Your task to perform on an android device: turn on improve location accuracy Image 0: 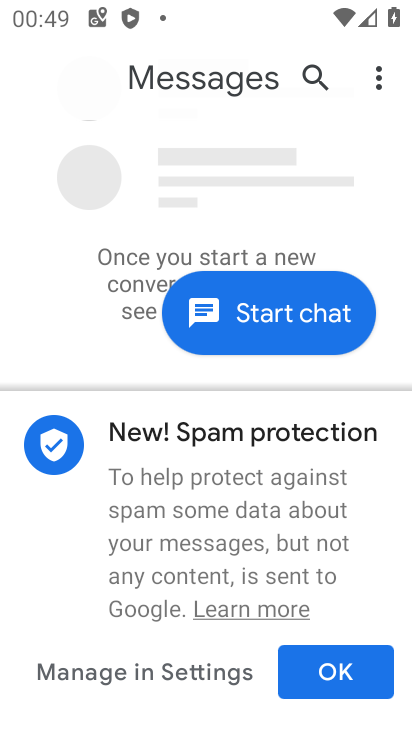
Step 0: press home button
Your task to perform on an android device: turn on improve location accuracy Image 1: 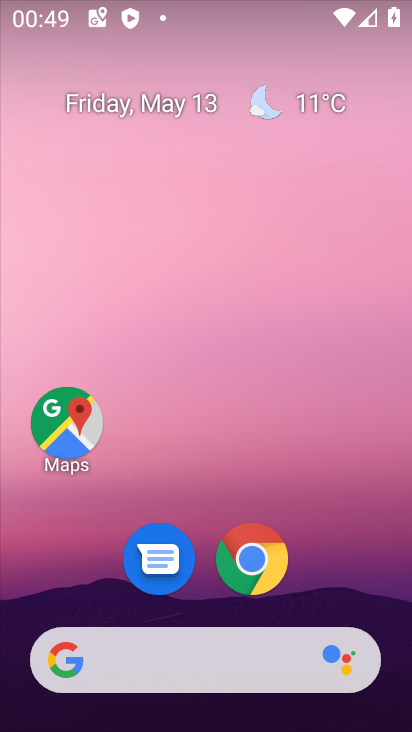
Step 1: drag from (197, 486) to (209, 89)
Your task to perform on an android device: turn on improve location accuracy Image 2: 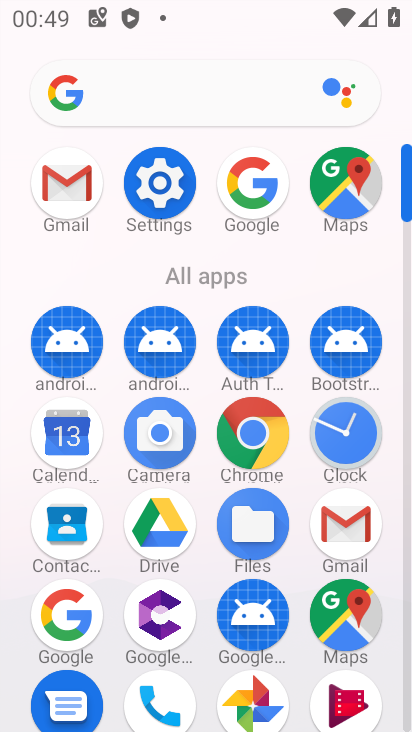
Step 2: click (156, 180)
Your task to perform on an android device: turn on improve location accuracy Image 3: 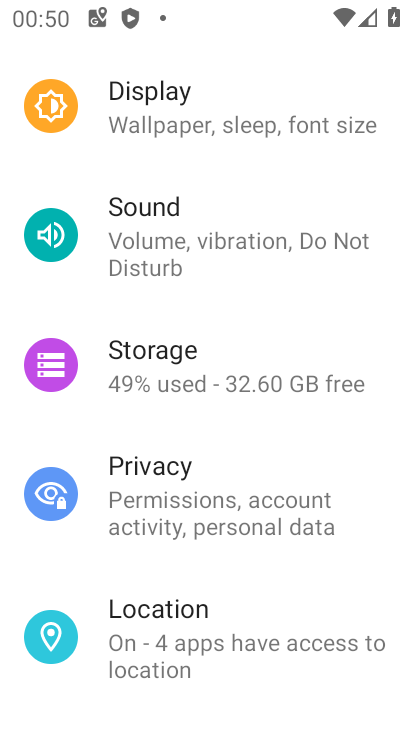
Step 3: click (207, 636)
Your task to perform on an android device: turn on improve location accuracy Image 4: 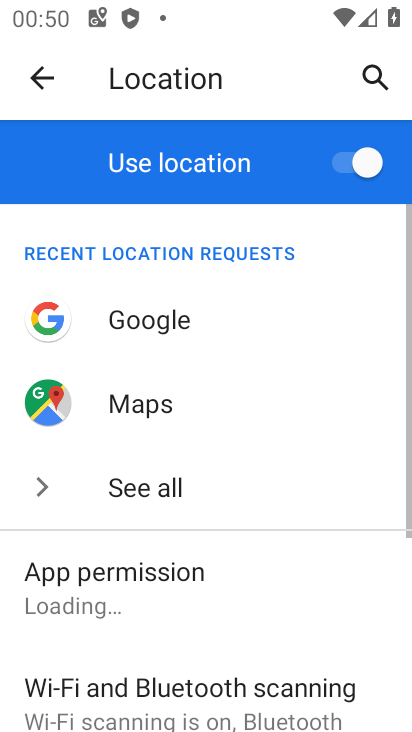
Step 4: drag from (276, 574) to (277, 229)
Your task to perform on an android device: turn on improve location accuracy Image 5: 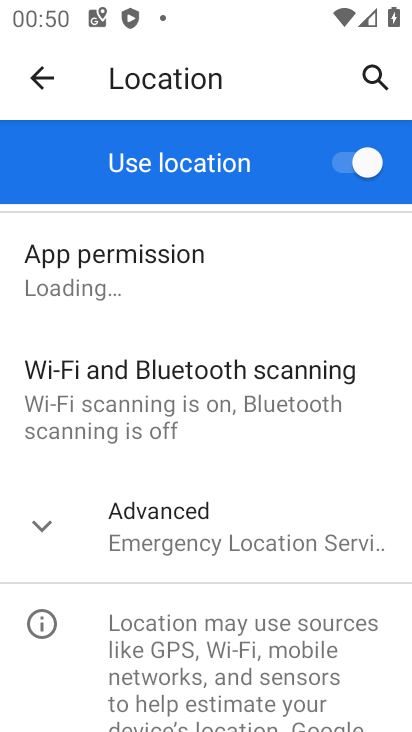
Step 5: click (142, 523)
Your task to perform on an android device: turn on improve location accuracy Image 6: 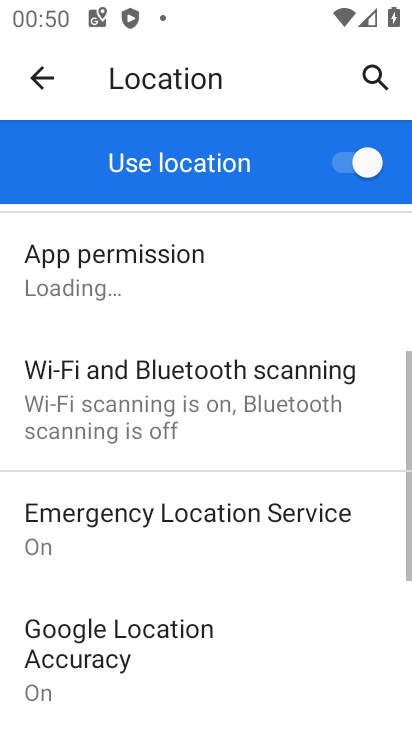
Step 6: drag from (291, 571) to (282, 309)
Your task to perform on an android device: turn on improve location accuracy Image 7: 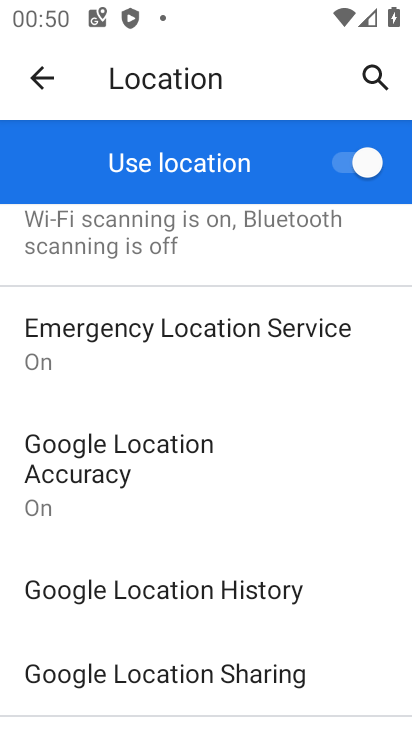
Step 7: click (117, 473)
Your task to perform on an android device: turn on improve location accuracy Image 8: 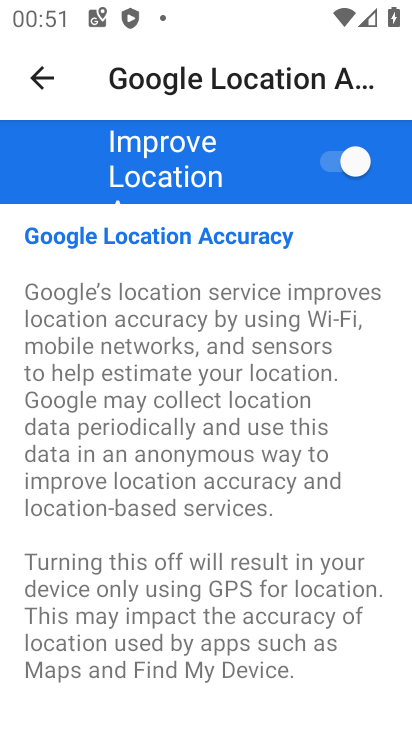
Step 8: task complete